Your task to perform on an android device: Open CNN.com Image 0: 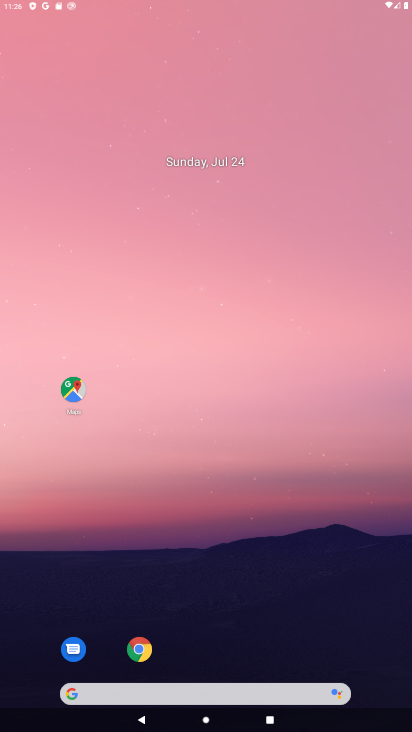
Step 0: press home button
Your task to perform on an android device: Open CNN.com Image 1: 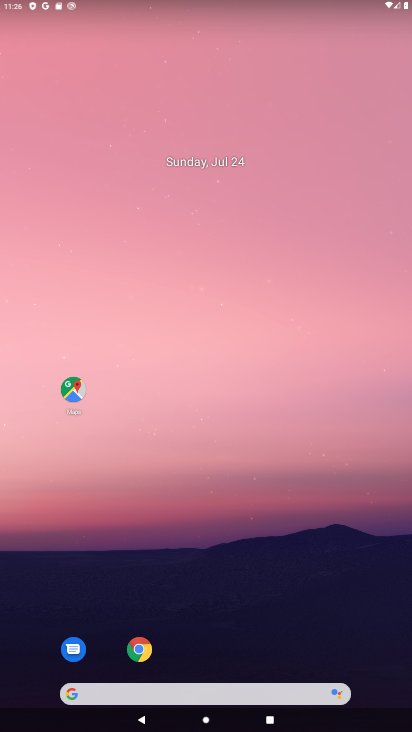
Step 1: click (137, 644)
Your task to perform on an android device: Open CNN.com Image 2: 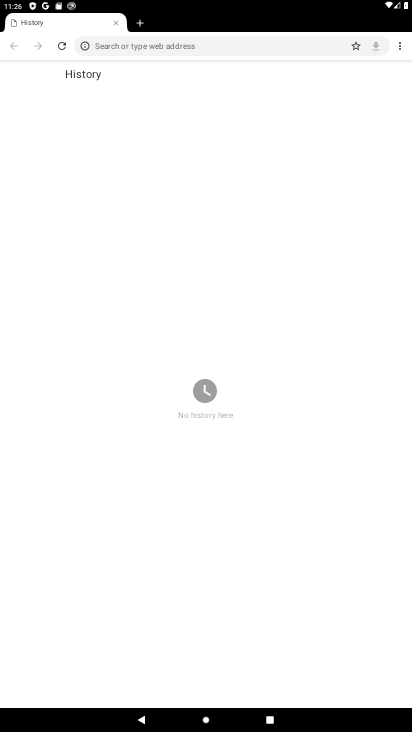
Step 2: click (139, 17)
Your task to perform on an android device: Open CNN.com Image 3: 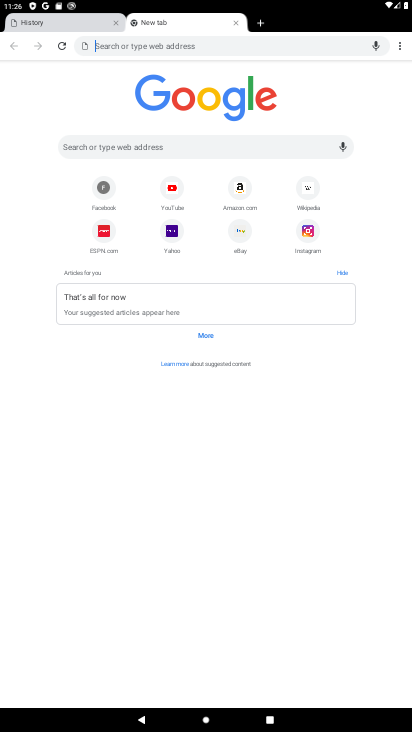
Step 3: click (111, 144)
Your task to perform on an android device: Open CNN.com Image 4: 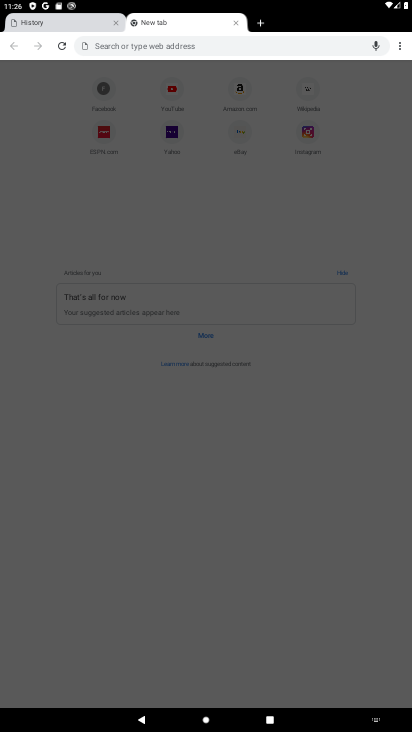
Step 4: type "cnn.com"
Your task to perform on an android device: Open CNN.com Image 5: 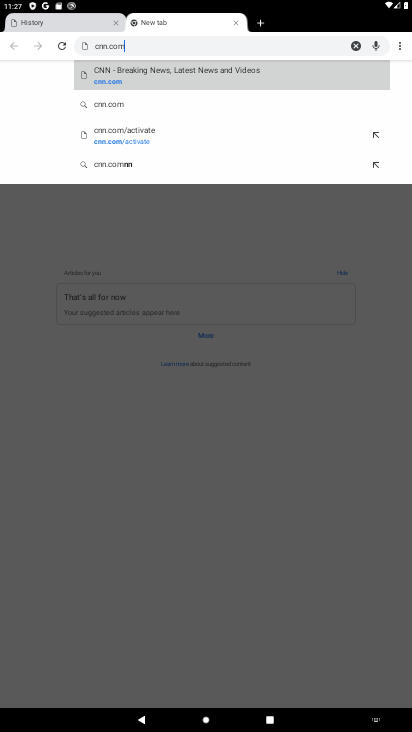
Step 5: click (129, 80)
Your task to perform on an android device: Open CNN.com Image 6: 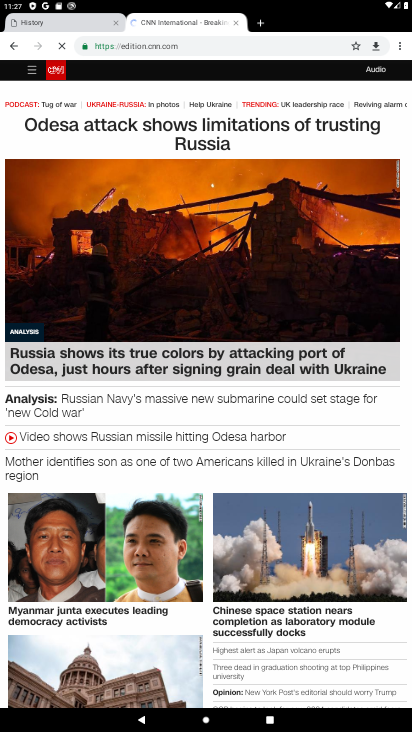
Step 6: task complete